Your task to perform on an android device: toggle priority inbox in the gmail app Image 0: 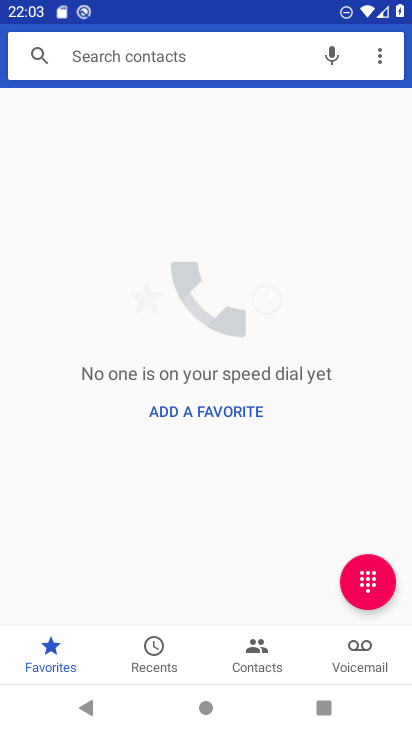
Step 0: press home button
Your task to perform on an android device: toggle priority inbox in the gmail app Image 1: 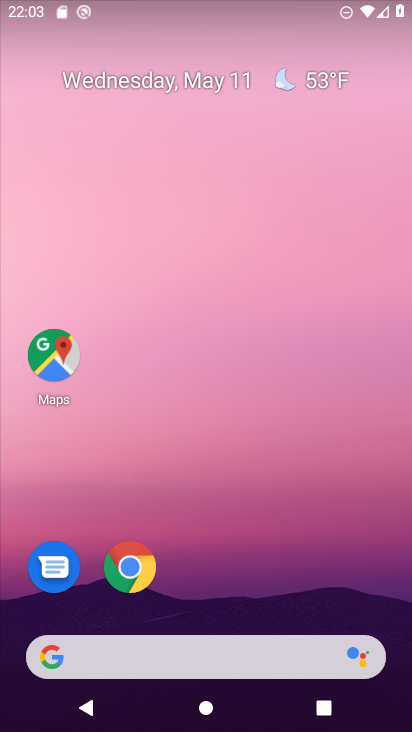
Step 1: drag from (147, 704) to (242, 41)
Your task to perform on an android device: toggle priority inbox in the gmail app Image 2: 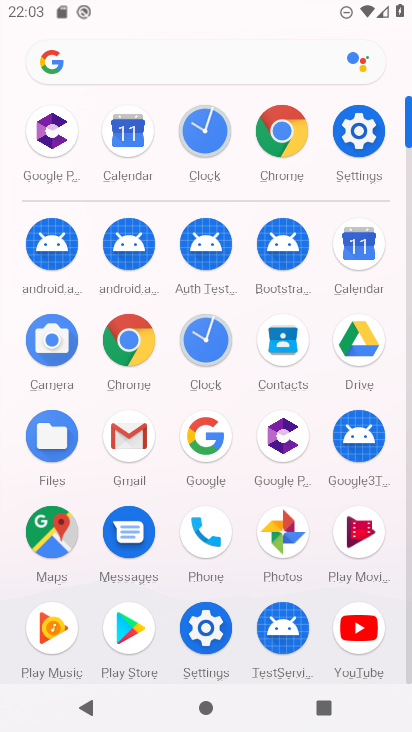
Step 2: click (123, 436)
Your task to perform on an android device: toggle priority inbox in the gmail app Image 3: 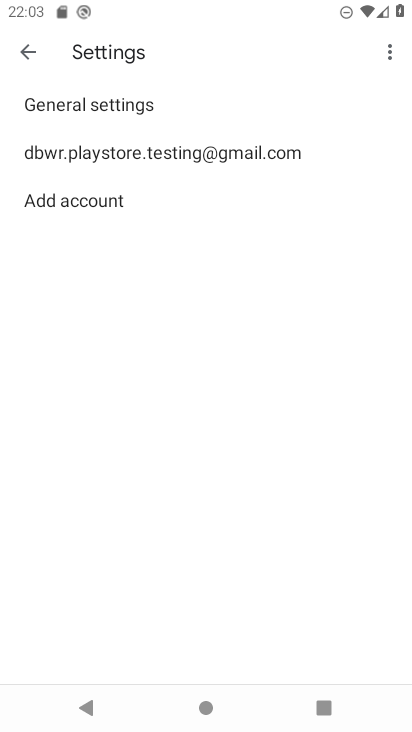
Step 3: click (264, 147)
Your task to perform on an android device: toggle priority inbox in the gmail app Image 4: 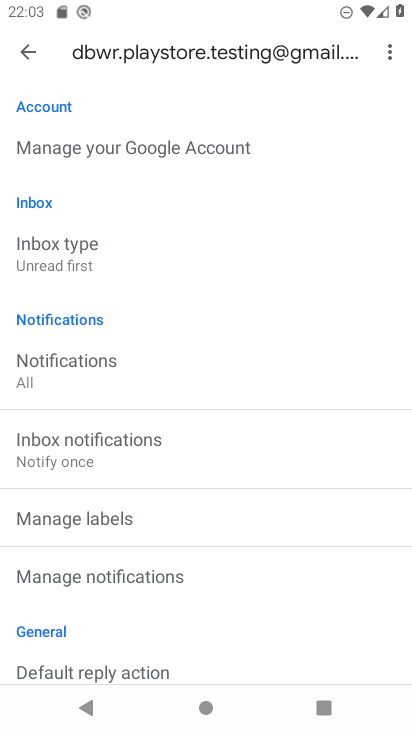
Step 4: click (59, 259)
Your task to perform on an android device: toggle priority inbox in the gmail app Image 5: 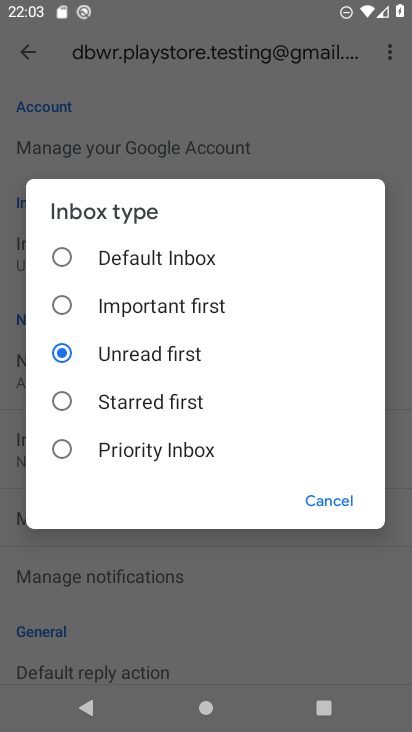
Step 5: click (146, 450)
Your task to perform on an android device: toggle priority inbox in the gmail app Image 6: 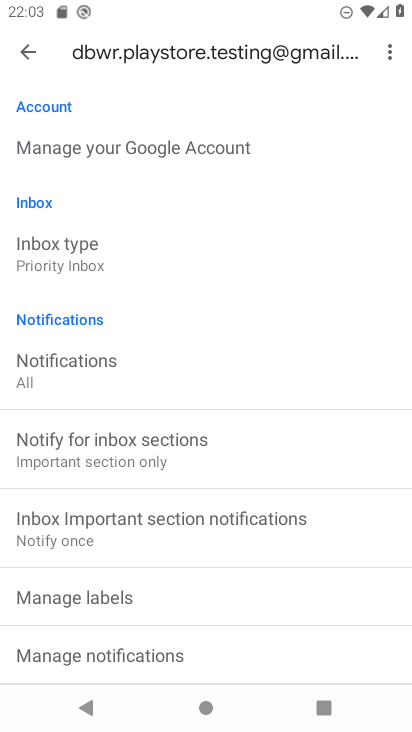
Step 6: task complete